Your task to perform on an android device: Open Wikipedia Image 0: 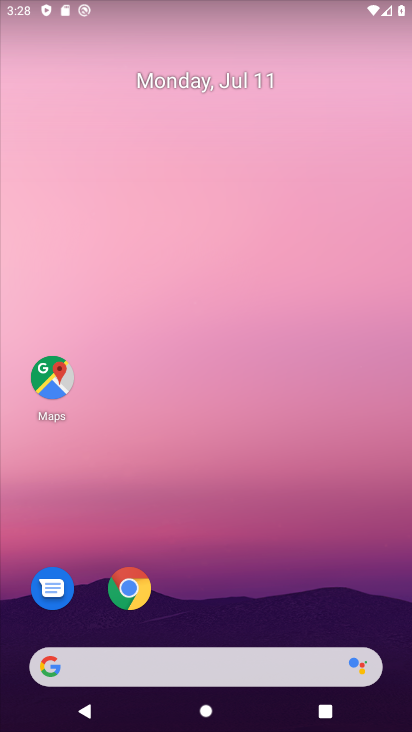
Step 0: click (57, 669)
Your task to perform on an android device: Open Wikipedia Image 1: 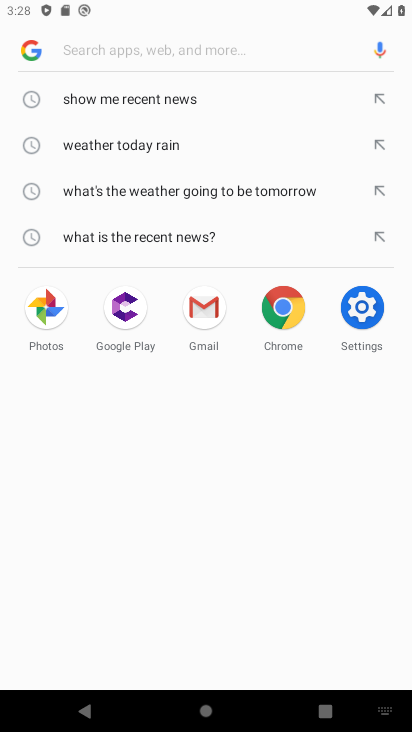
Step 1: click (195, 35)
Your task to perform on an android device: Open Wikipedia Image 2: 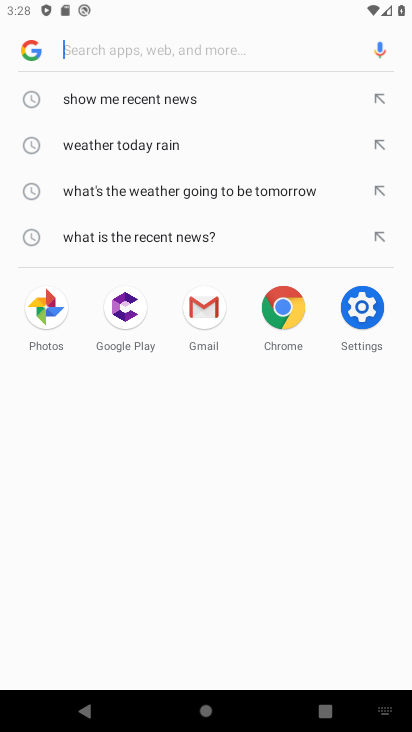
Step 2: type "Wikipedia"
Your task to perform on an android device: Open Wikipedia Image 3: 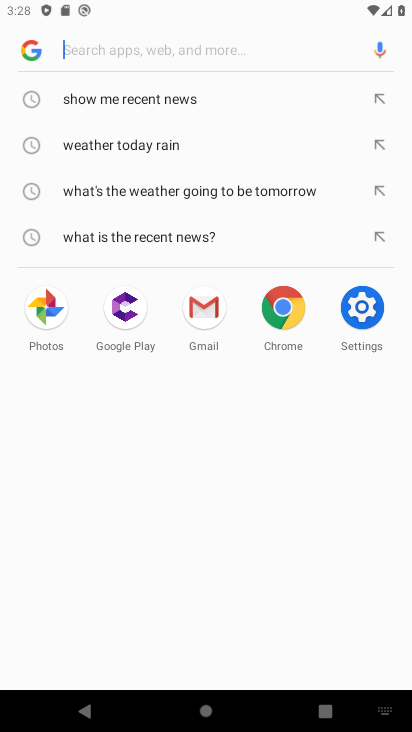
Step 3: click (162, 54)
Your task to perform on an android device: Open Wikipedia Image 4: 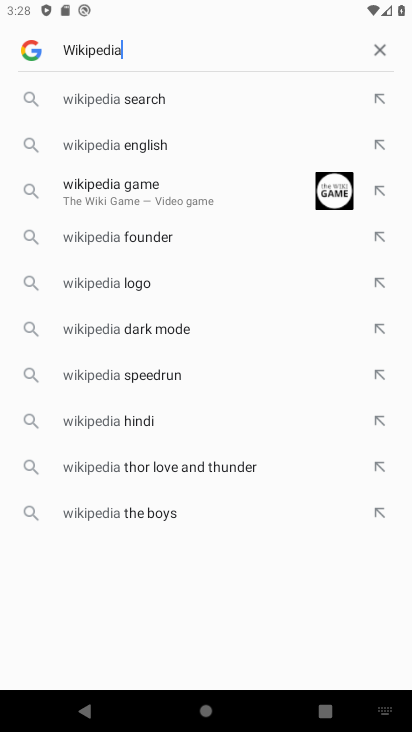
Step 4: click (92, 95)
Your task to perform on an android device: Open Wikipedia Image 5: 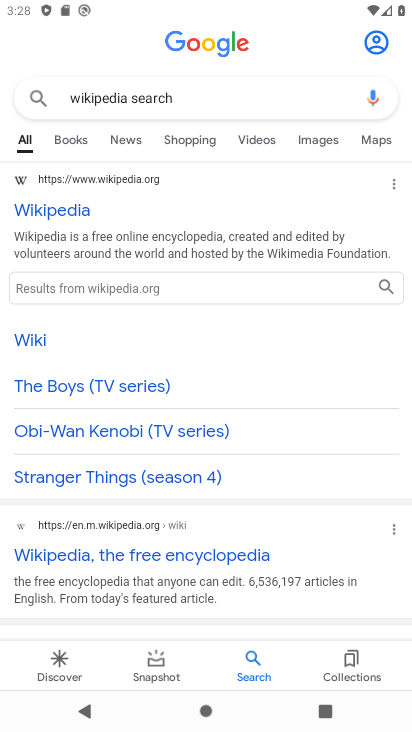
Step 5: click (46, 214)
Your task to perform on an android device: Open Wikipedia Image 6: 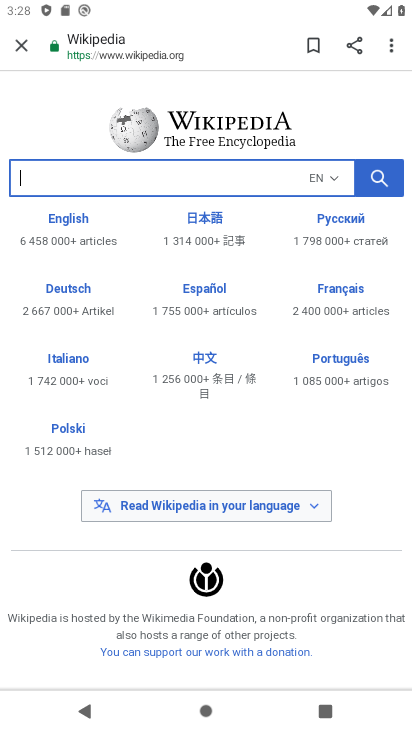
Step 6: task complete